Your task to perform on an android device: Search for "logitech g pro" on costco.com, select the first entry, add it to the cart, then select checkout. Image 0: 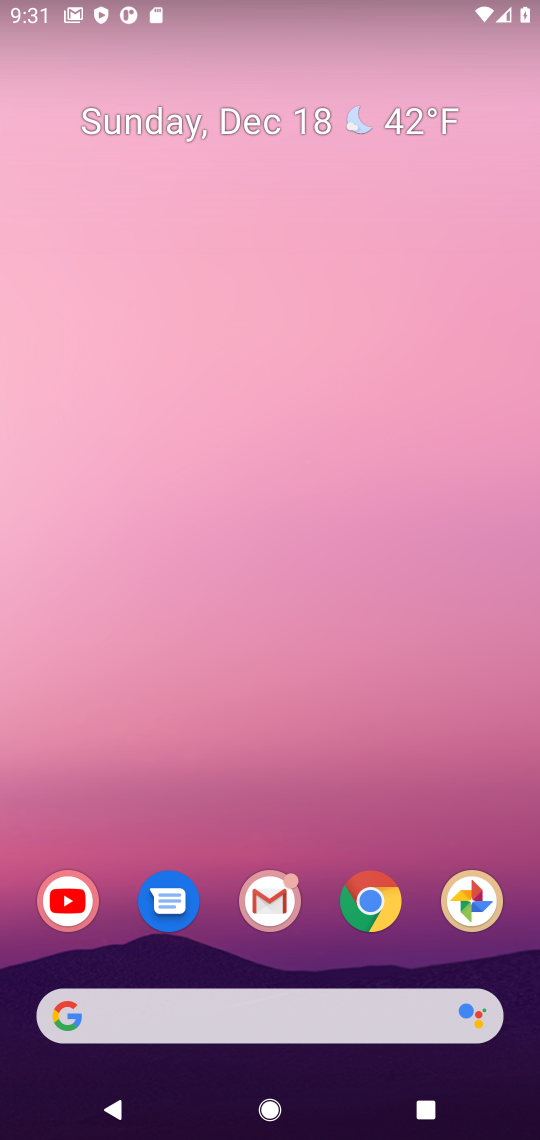
Step 0: click (384, 882)
Your task to perform on an android device: Search for "logitech g pro" on costco.com, select the first entry, add it to the cart, then select checkout. Image 1: 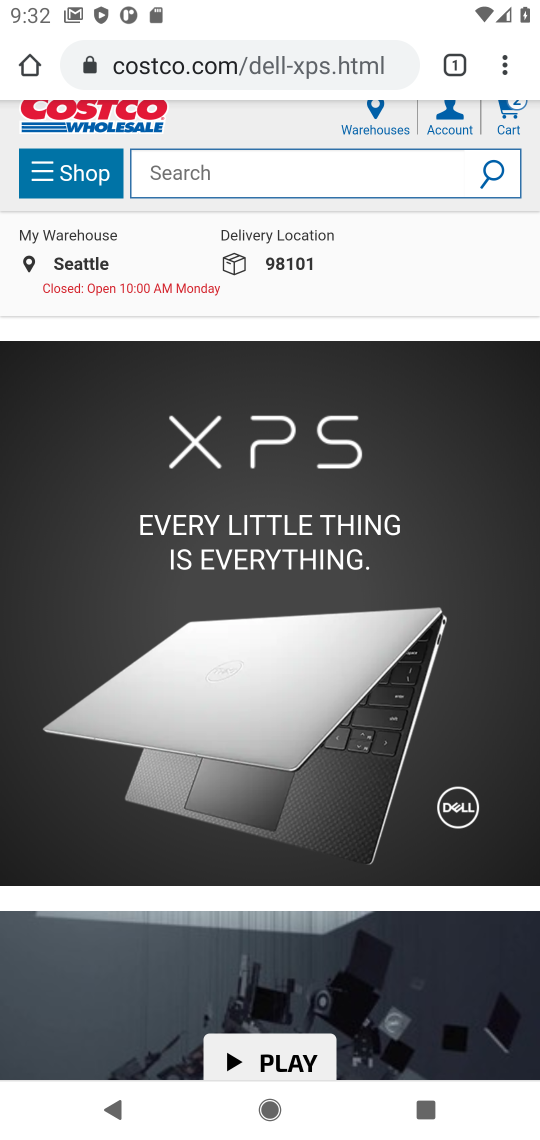
Step 1: click (294, 171)
Your task to perform on an android device: Search for "logitech g pro" on costco.com, select the first entry, add it to the cart, then select checkout. Image 2: 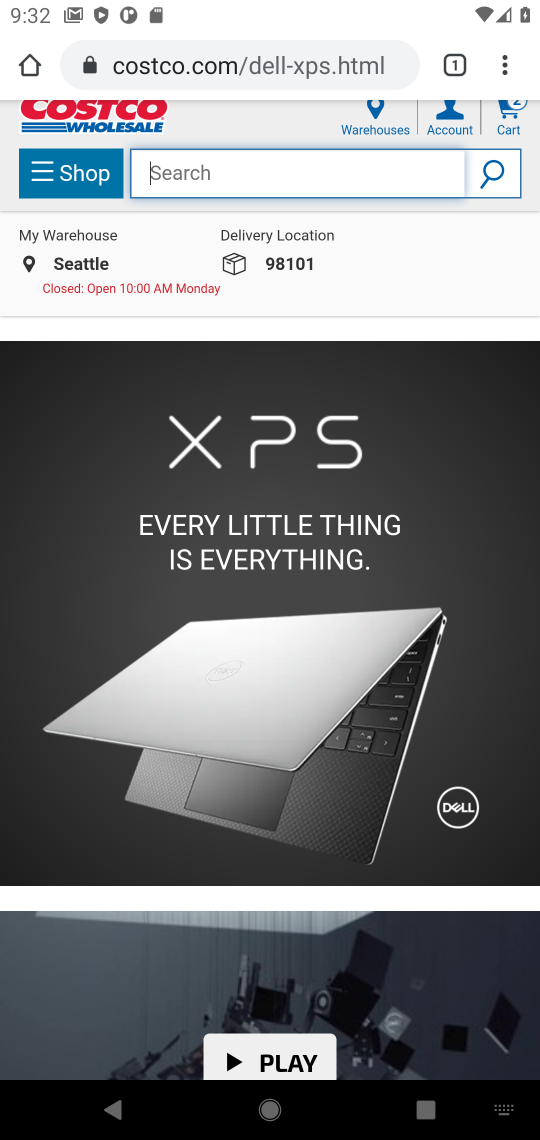
Step 2: type "logitech g pro"
Your task to perform on an android device: Search for "logitech g pro" on costco.com, select the first entry, add it to the cart, then select checkout. Image 3: 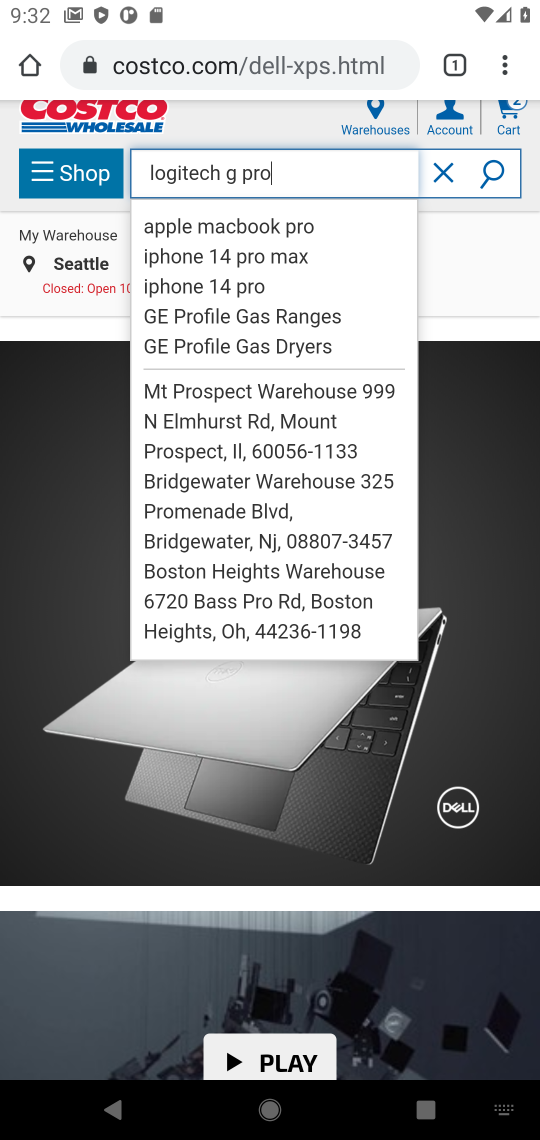
Step 3: click (482, 175)
Your task to perform on an android device: Search for "logitech g pro" on costco.com, select the first entry, add it to the cart, then select checkout. Image 4: 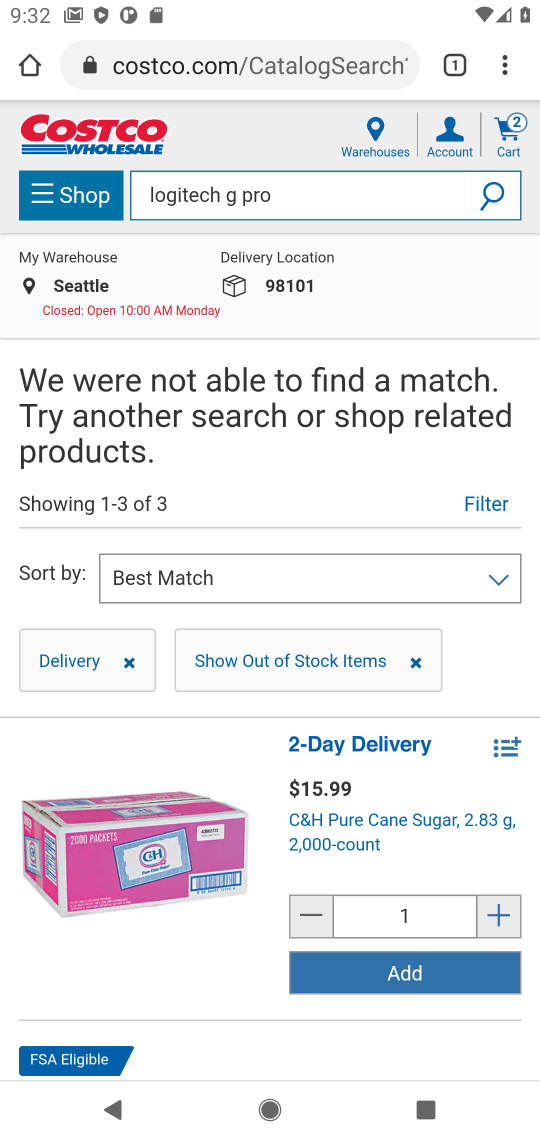
Step 4: click (362, 958)
Your task to perform on an android device: Search for "logitech g pro" on costco.com, select the first entry, add it to the cart, then select checkout. Image 5: 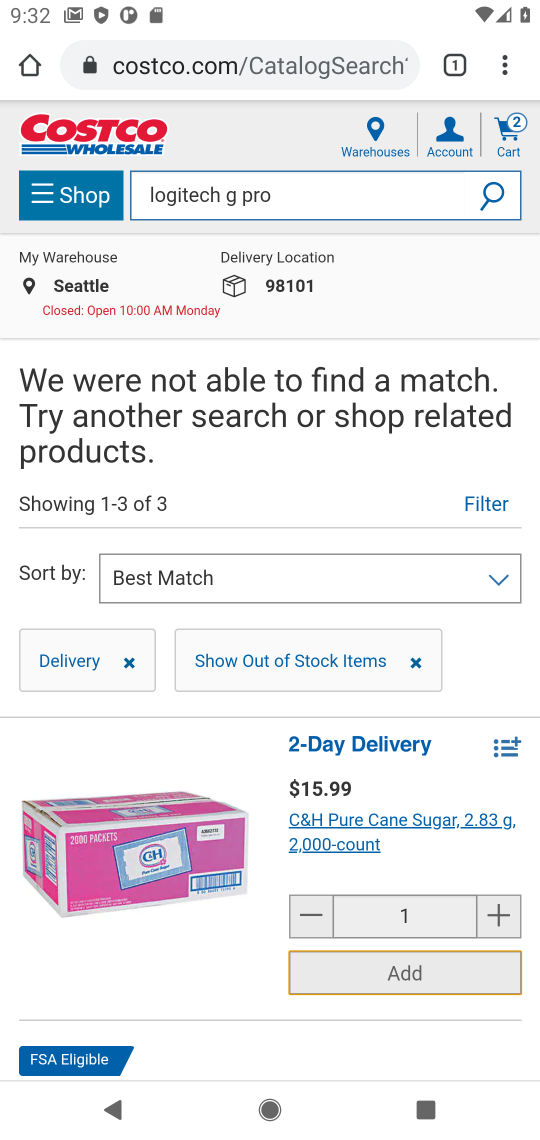
Step 5: task complete